Your task to perform on an android device: Add "macbook air" to the cart on costco.com, then select checkout. Image 0: 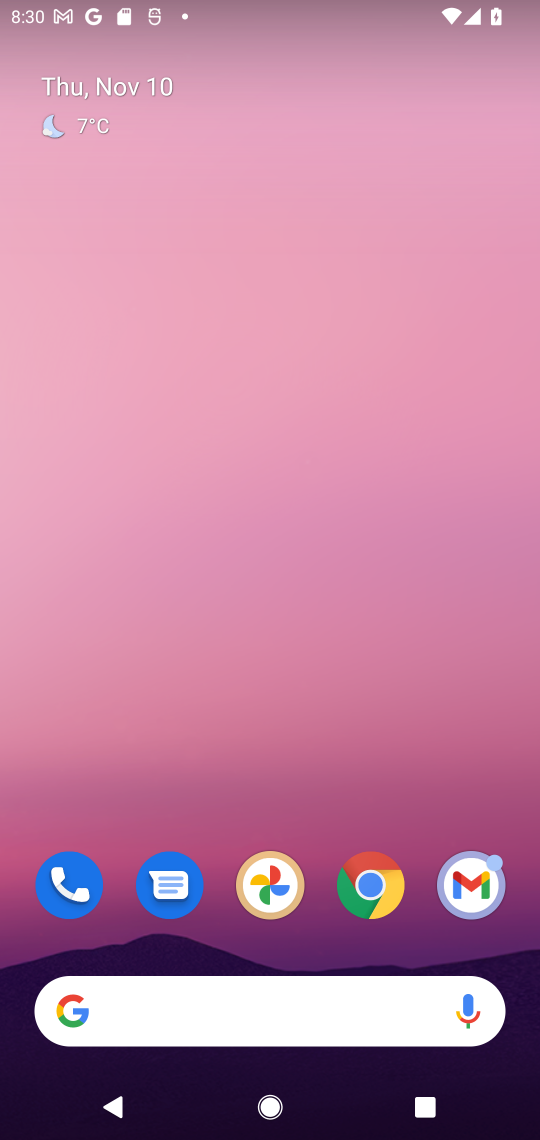
Step 0: click (370, 880)
Your task to perform on an android device: Add "macbook air" to the cart on costco.com, then select checkout. Image 1: 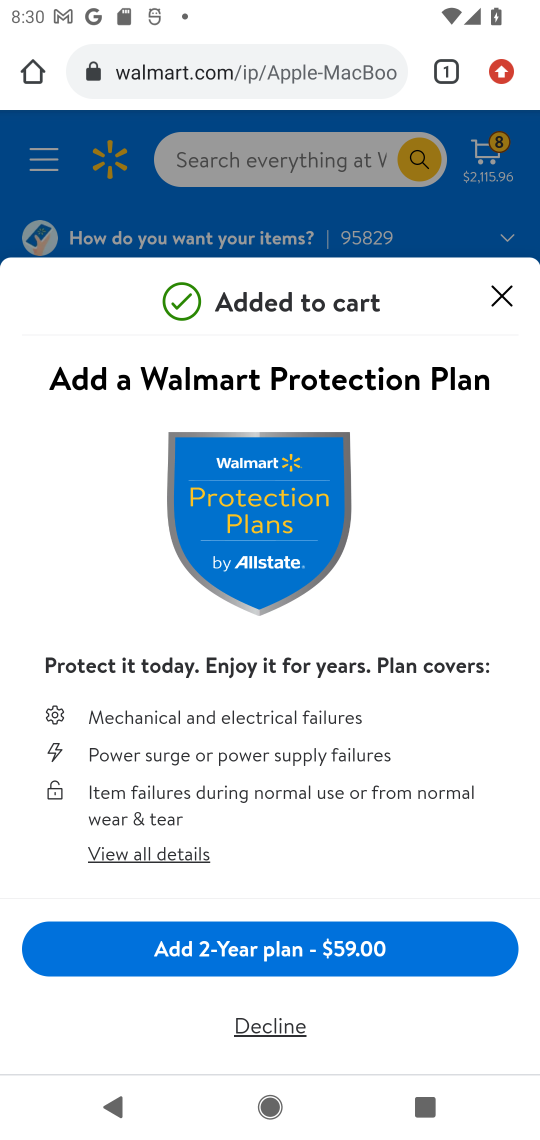
Step 1: click (300, 74)
Your task to perform on an android device: Add "macbook air" to the cart on costco.com, then select checkout. Image 2: 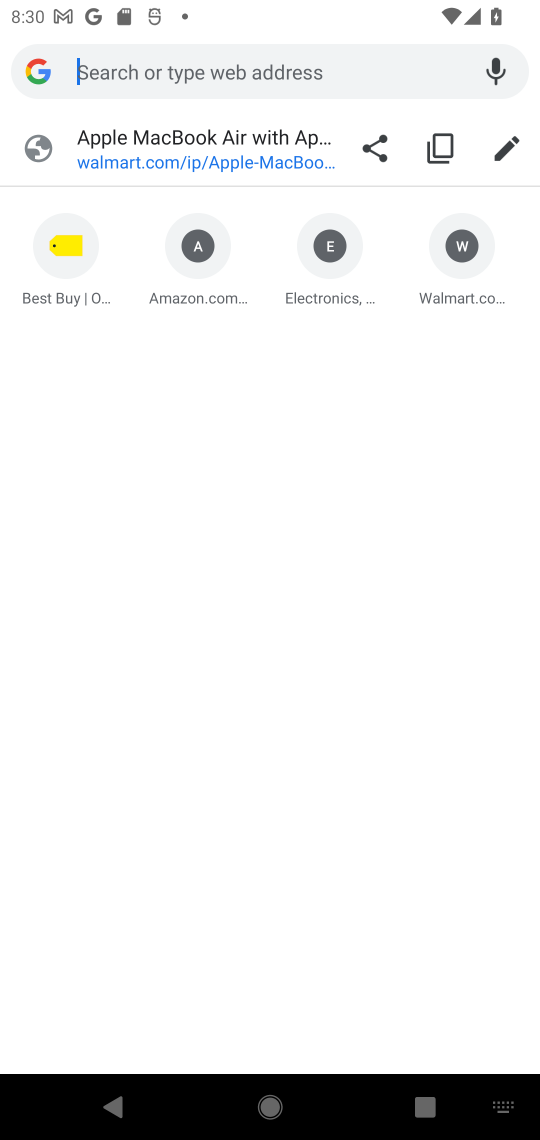
Step 2: press enter
Your task to perform on an android device: Add "macbook air" to the cart on costco.com, then select checkout. Image 3: 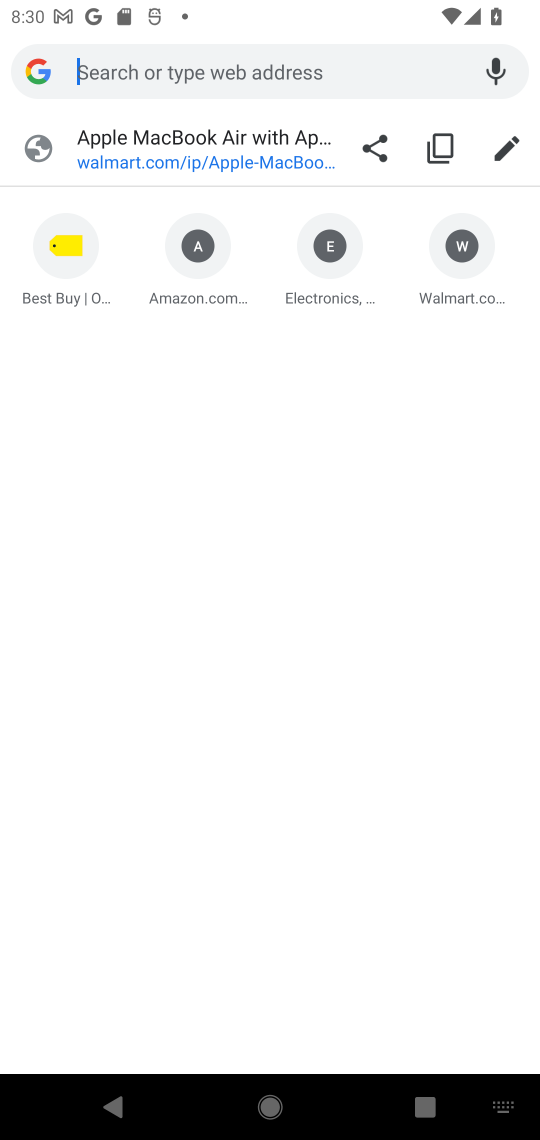
Step 3: type "costco.com"
Your task to perform on an android device: Add "macbook air" to the cart on costco.com, then select checkout. Image 4: 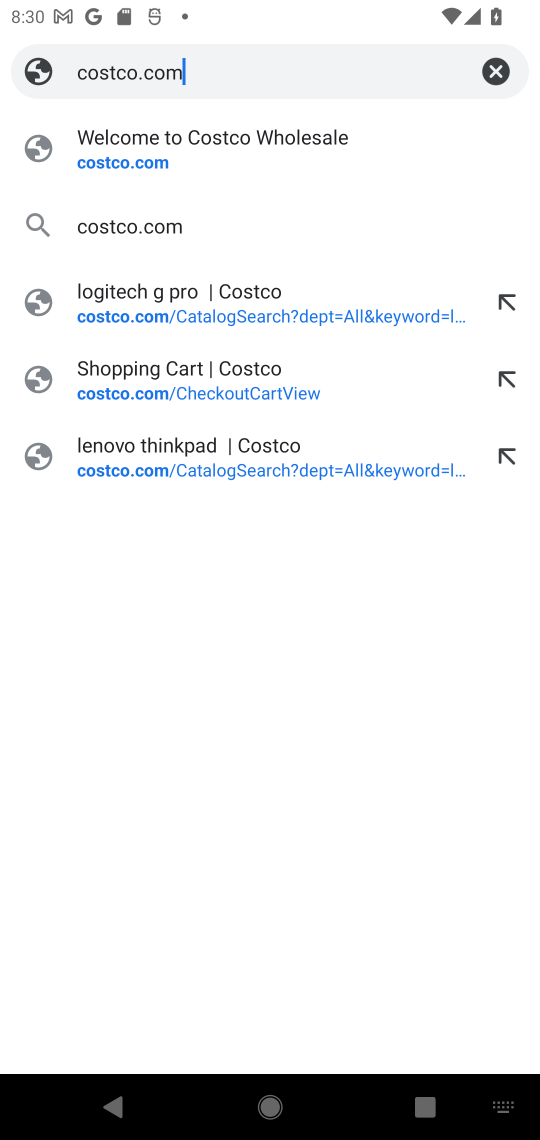
Step 4: click (139, 219)
Your task to perform on an android device: Add "macbook air" to the cart on costco.com, then select checkout. Image 5: 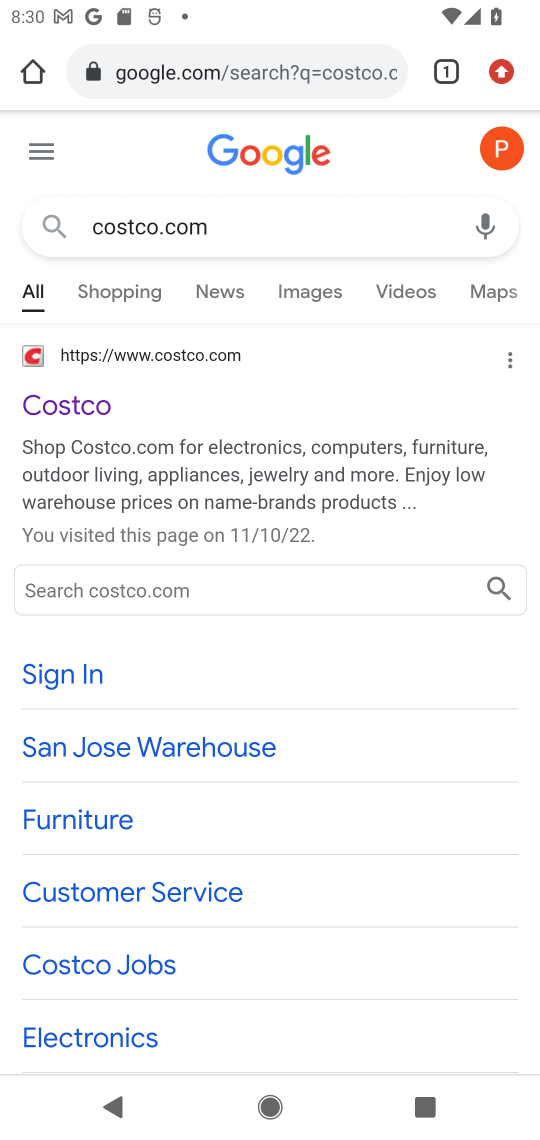
Step 5: click (169, 350)
Your task to perform on an android device: Add "macbook air" to the cart on costco.com, then select checkout. Image 6: 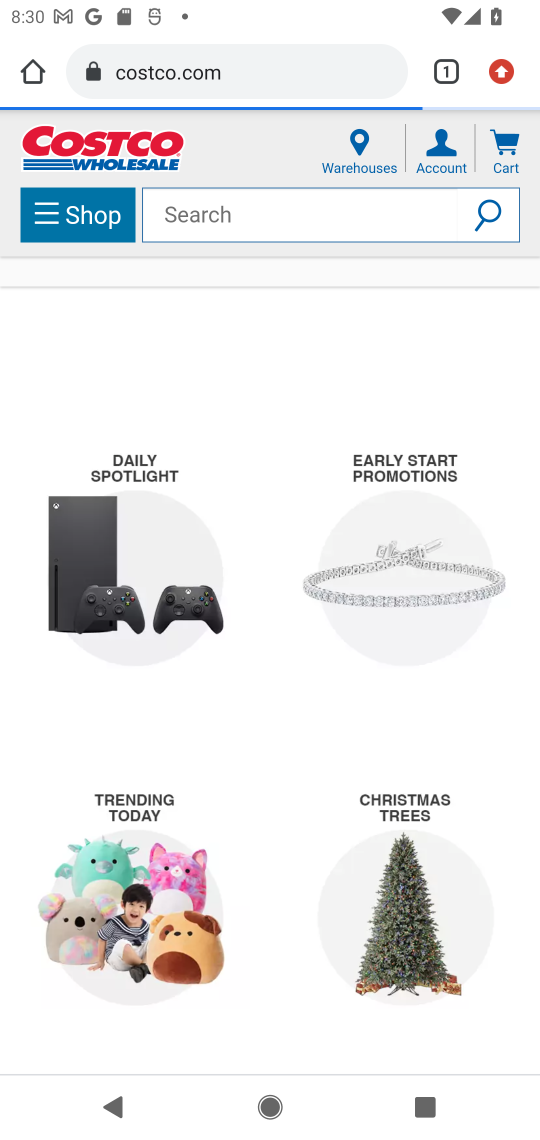
Step 6: click (355, 220)
Your task to perform on an android device: Add "macbook air" to the cart on costco.com, then select checkout. Image 7: 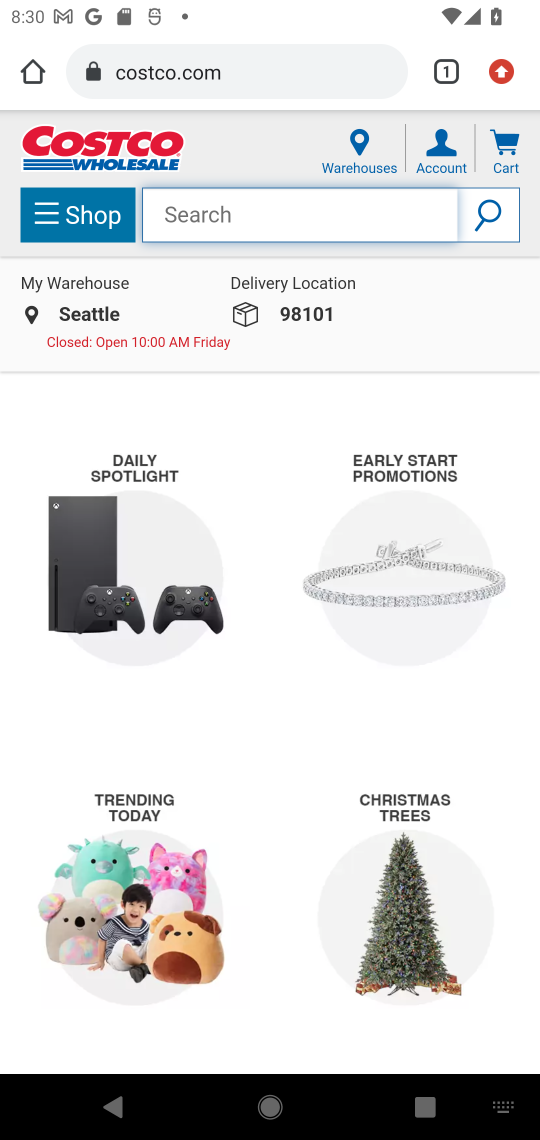
Step 7: type "macbook air"
Your task to perform on an android device: Add "macbook air" to the cart on costco.com, then select checkout. Image 8: 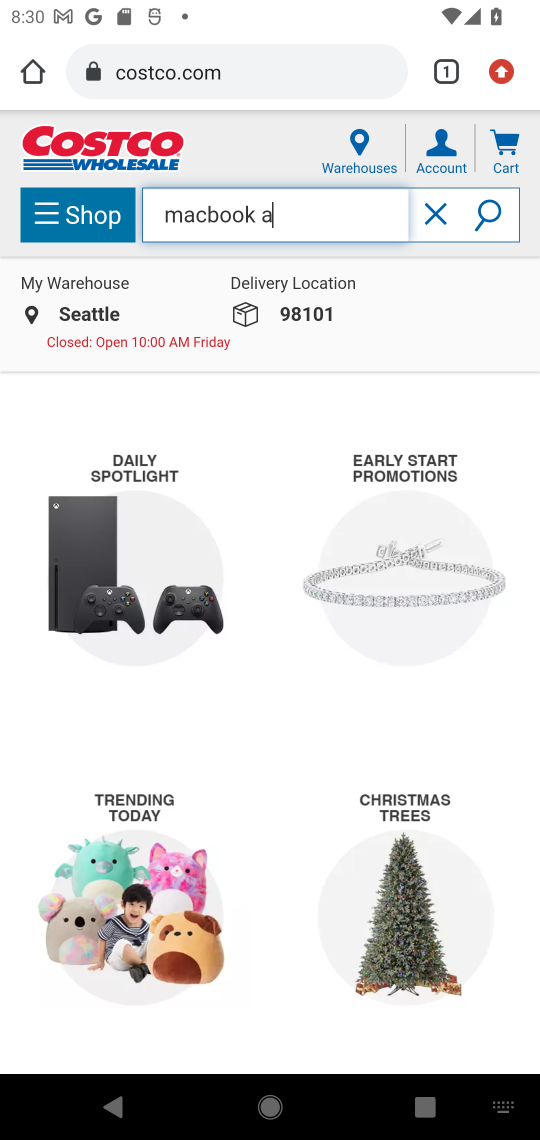
Step 8: press enter
Your task to perform on an android device: Add "macbook air" to the cart on costco.com, then select checkout. Image 9: 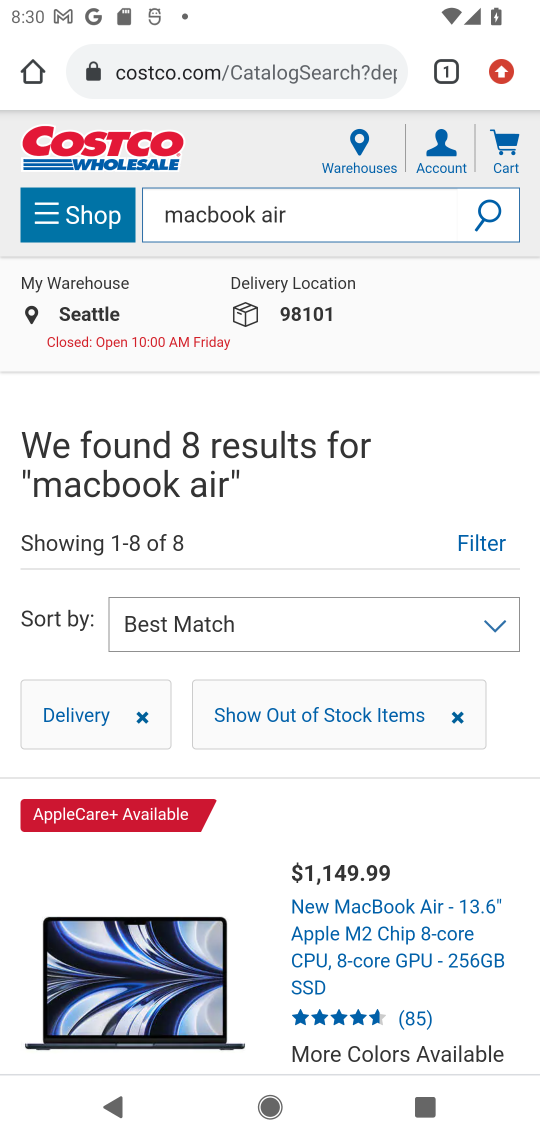
Step 9: click (184, 978)
Your task to perform on an android device: Add "macbook air" to the cart on costco.com, then select checkout. Image 10: 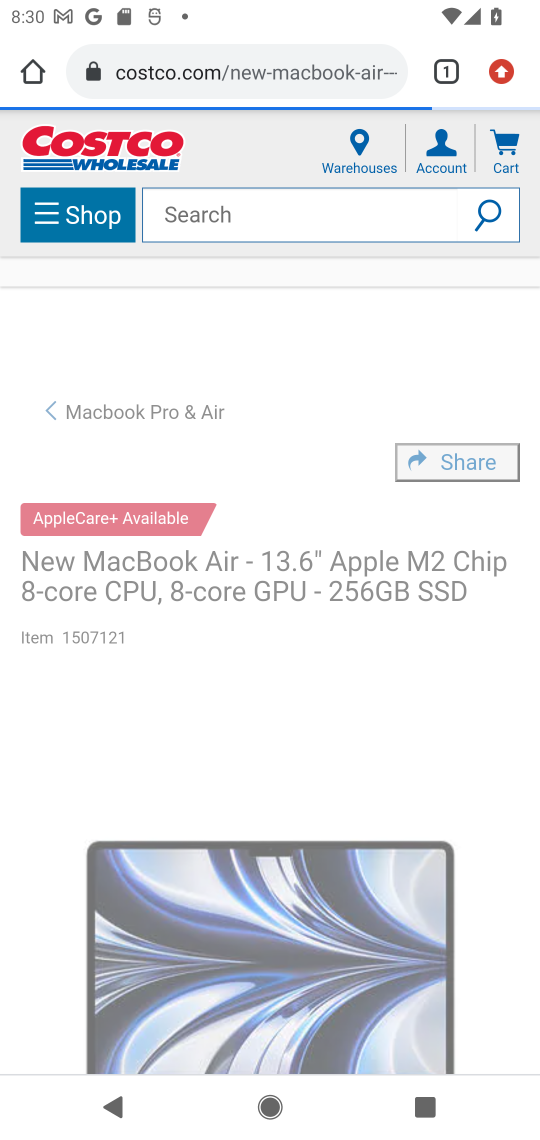
Step 10: drag from (486, 919) to (446, 220)
Your task to perform on an android device: Add "macbook air" to the cart on costco.com, then select checkout. Image 11: 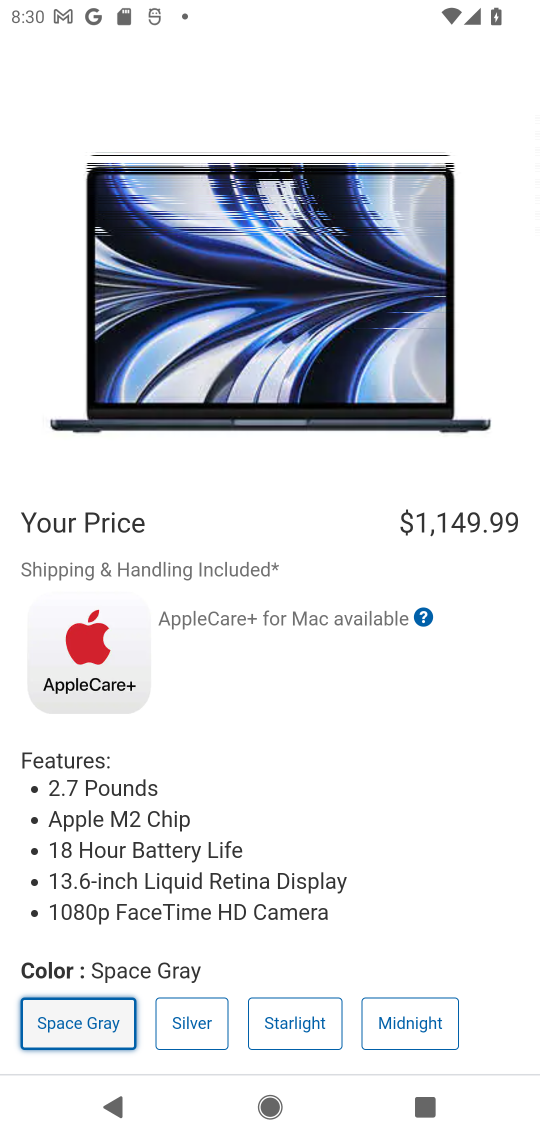
Step 11: drag from (459, 827) to (405, 217)
Your task to perform on an android device: Add "macbook air" to the cart on costco.com, then select checkout. Image 12: 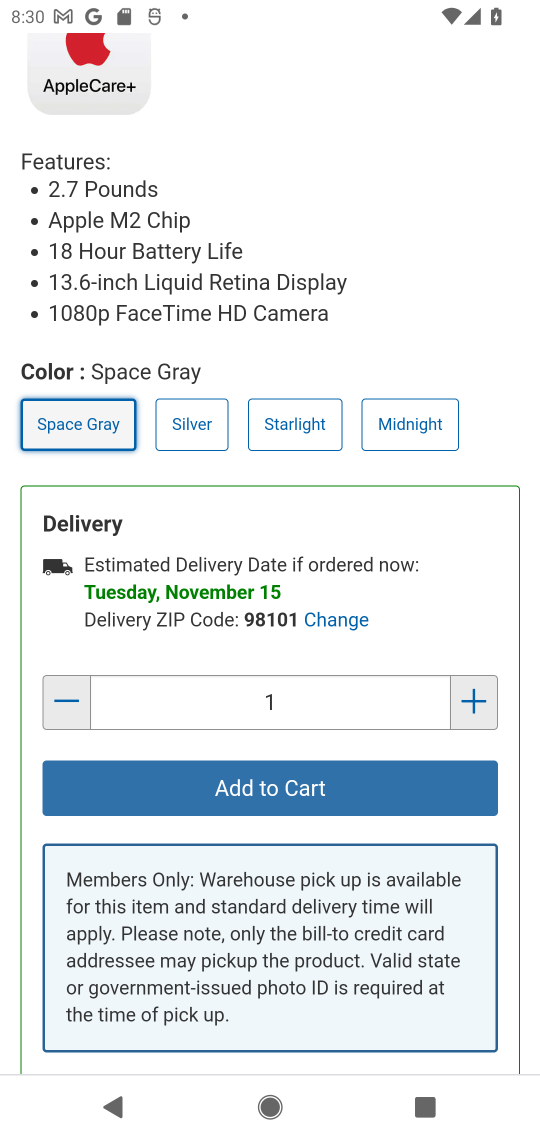
Step 12: click (304, 785)
Your task to perform on an android device: Add "macbook air" to the cart on costco.com, then select checkout. Image 13: 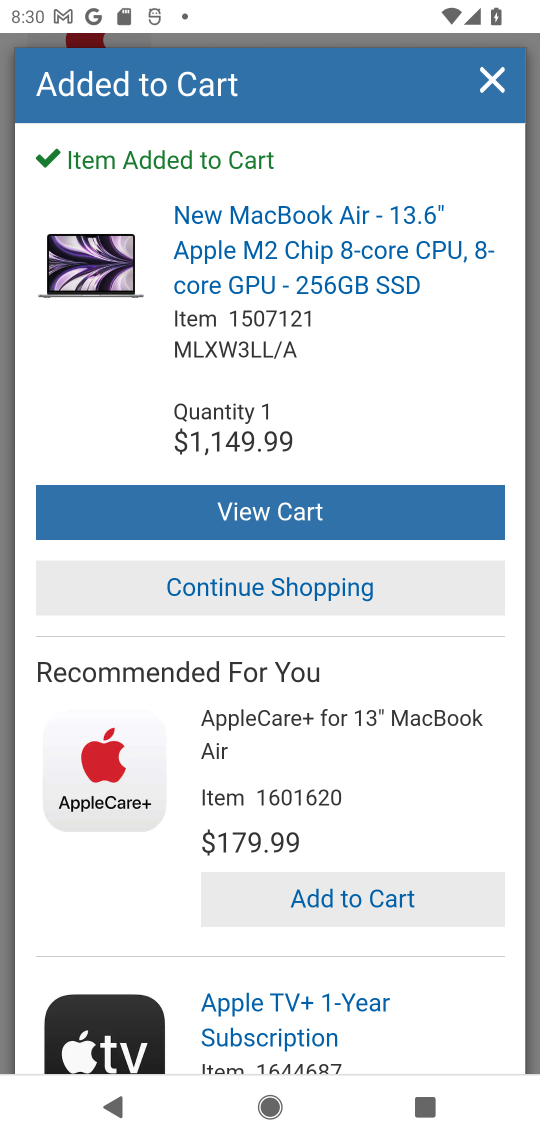
Step 13: click (298, 515)
Your task to perform on an android device: Add "macbook air" to the cart on costco.com, then select checkout. Image 14: 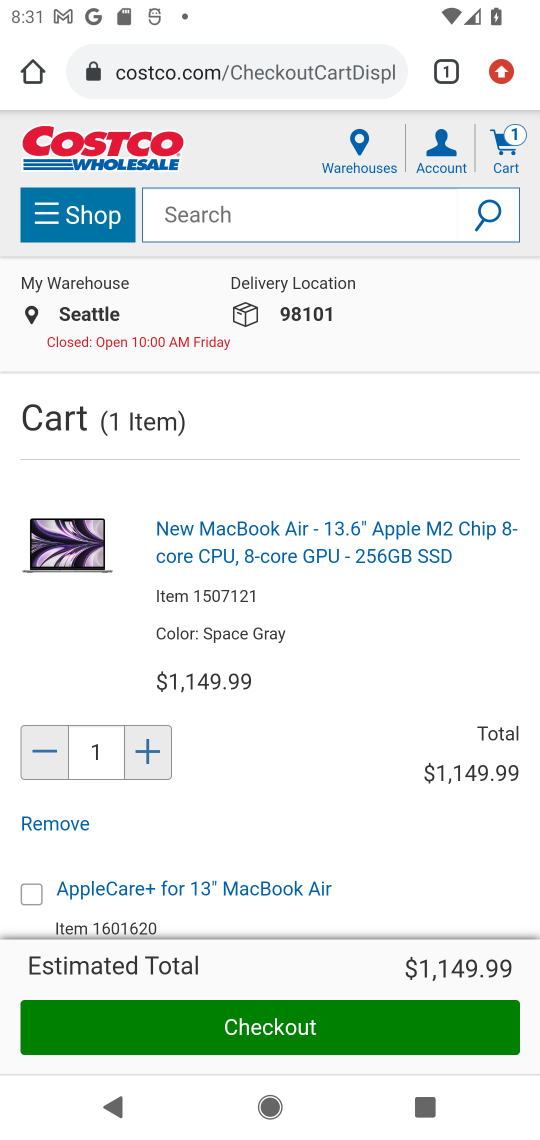
Step 14: click (309, 1025)
Your task to perform on an android device: Add "macbook air" to the cart on costco.com, then select checkout. Image 15: 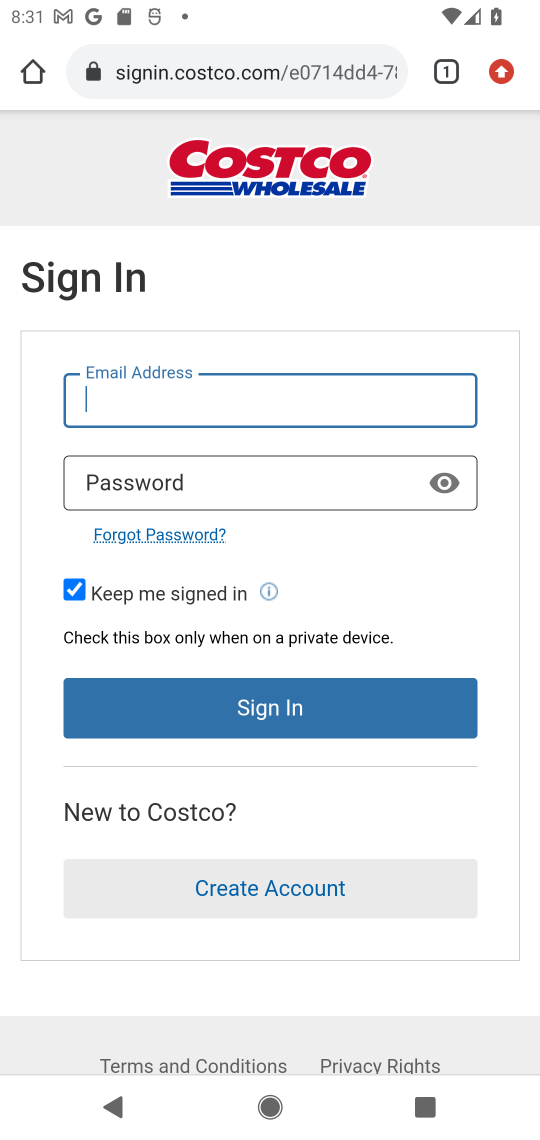
Step 15: task complete